Your task to perform on an android device: uninstall "Lyft - Rideshare, Bikes, Scooters & Transit" Image 0: 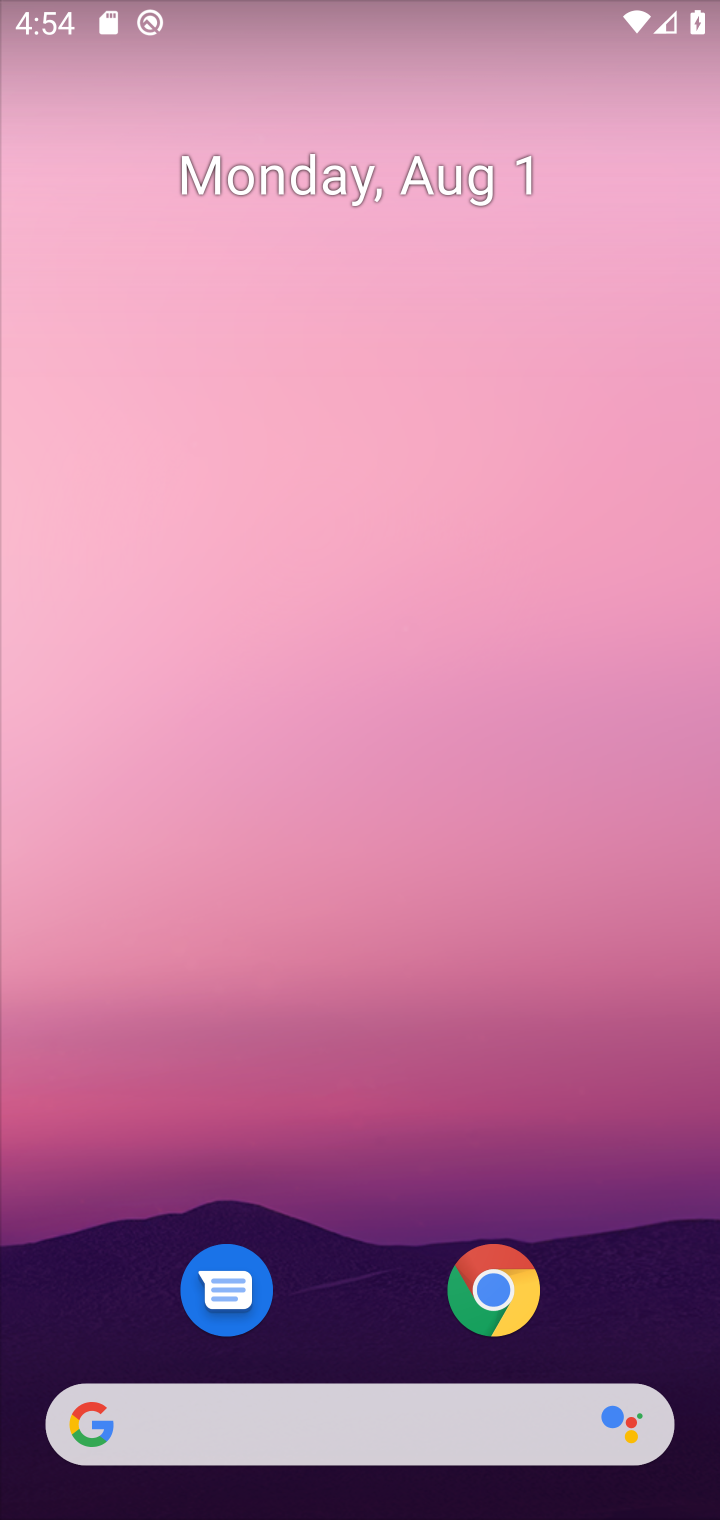
Step 0: drag from (295, 1408) to (0, 83)
Your task to perform on an android device: uninstall "Lyft - Rideshare, Bikes, Scooters & Transit" Image 1: 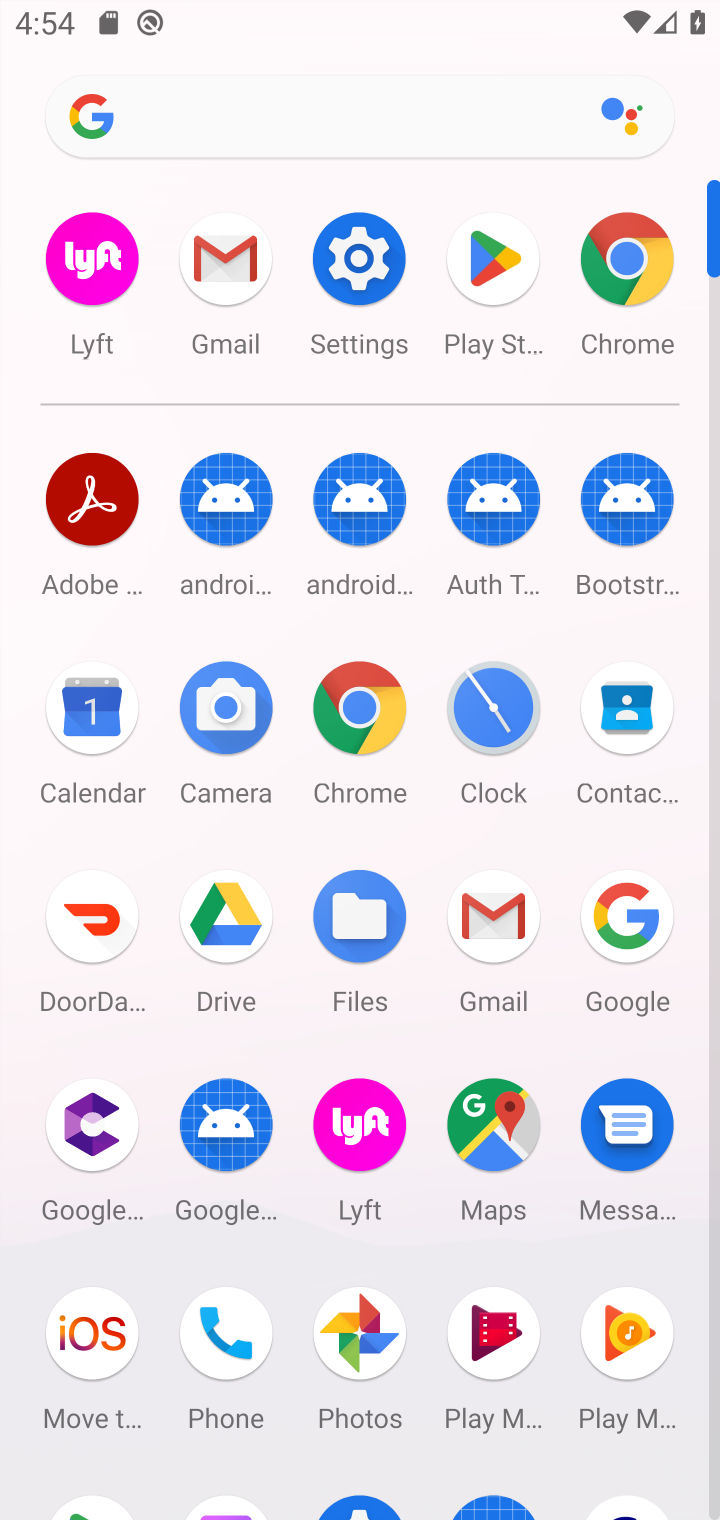
Step 1: click (501, 267)
Your task to perform on an android device: uninstall "Lyft - Rideshare, Bikes, Scooters & Transit" Image 2: 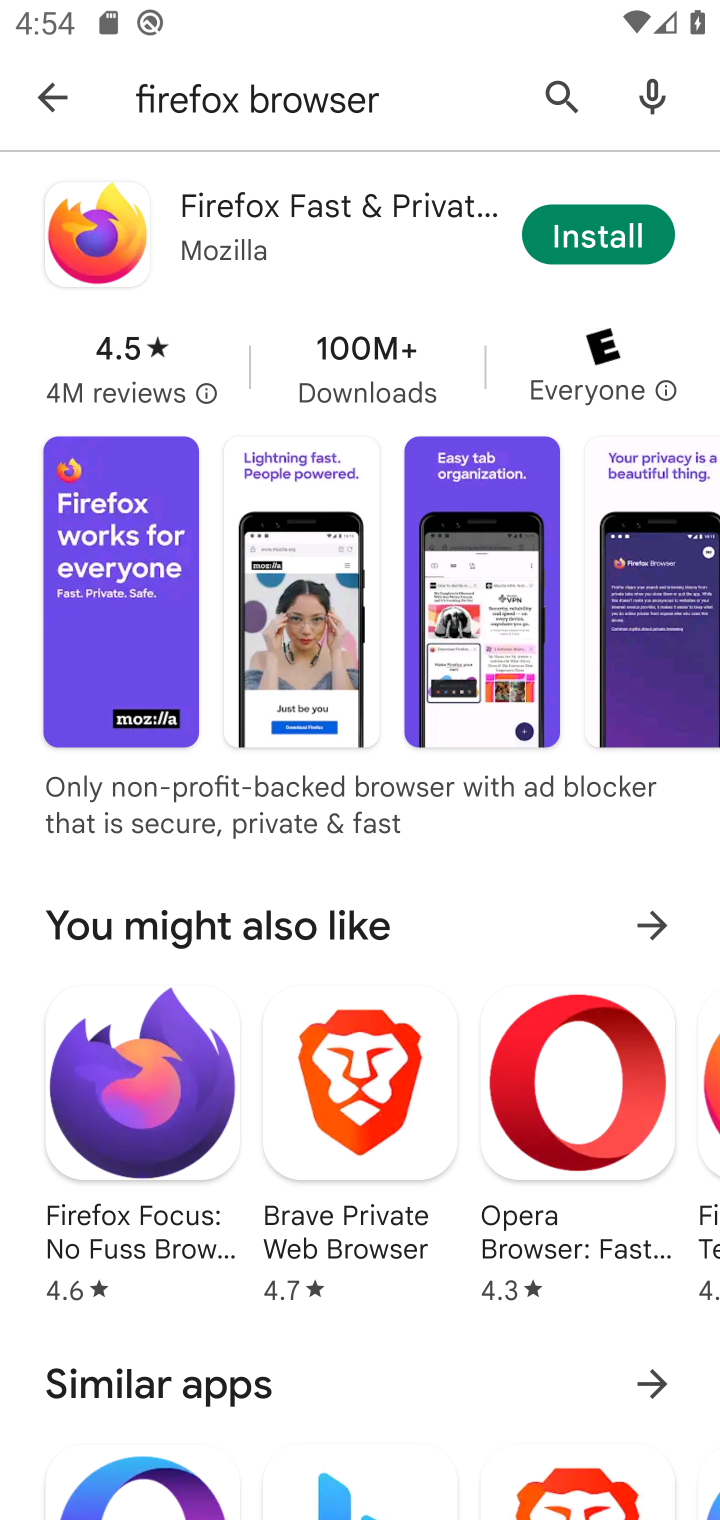
Step 2: click (544, 75)
Your task to perform on an android device: uninstall "Lyft - Rideshare, Bikes, Scooters & Transit" Image 3: 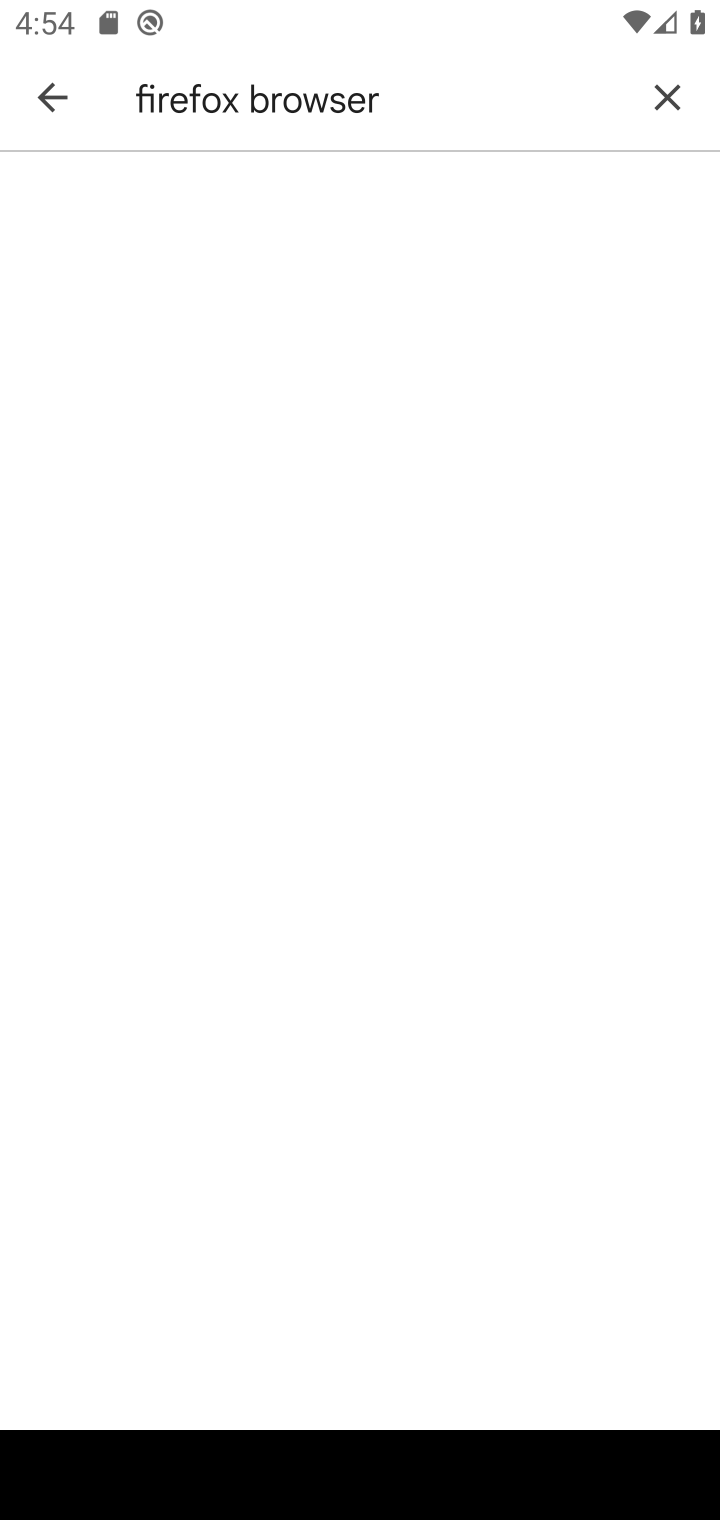
Step 3: click (679, 100)
Your task to perform on an android device: uninstall "Lyft - Rideshare, Bikes, Scooters & Transit" Image 4: 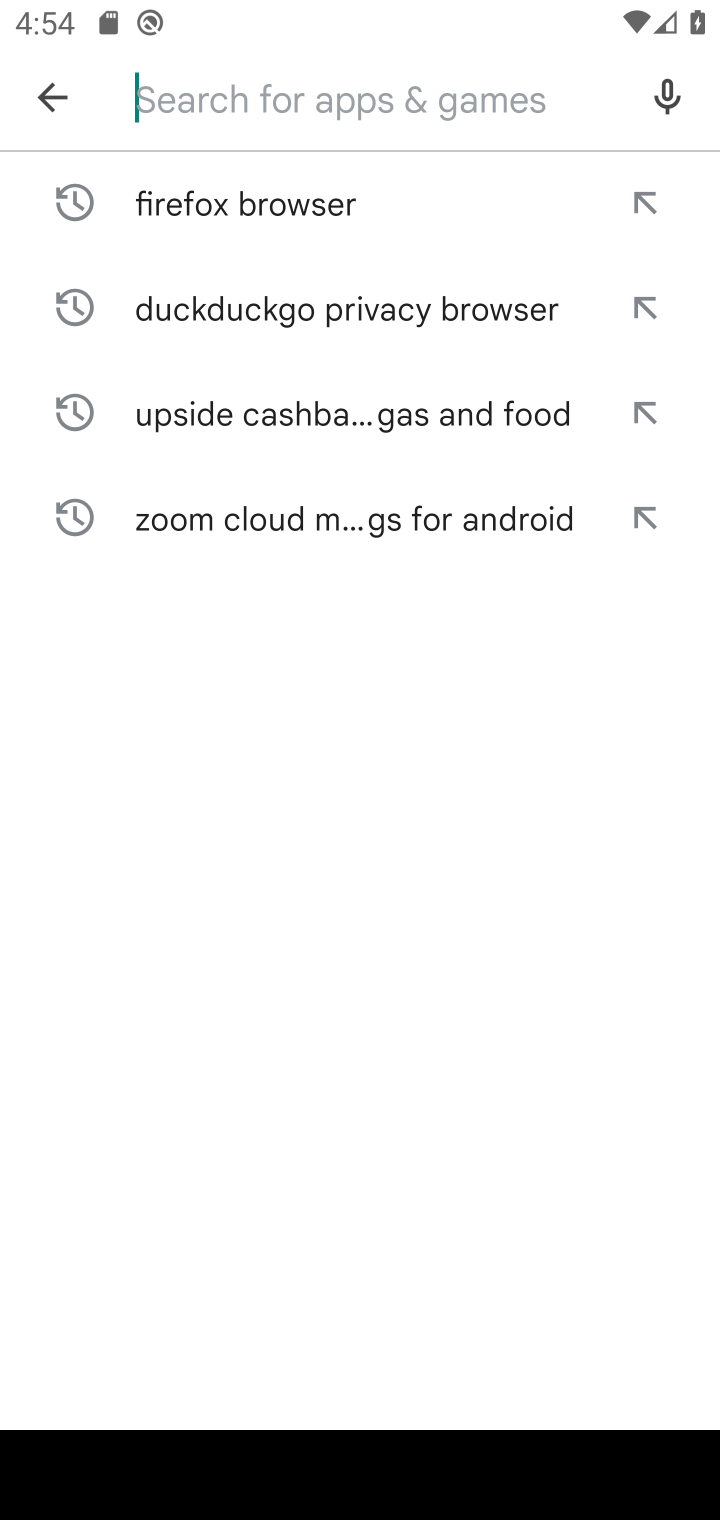
Step 4: type "lyft"
Your task to perform on an android device: uninstall "Lyft - Rideshare, Bikes, Scooters & Transit" Image 5: 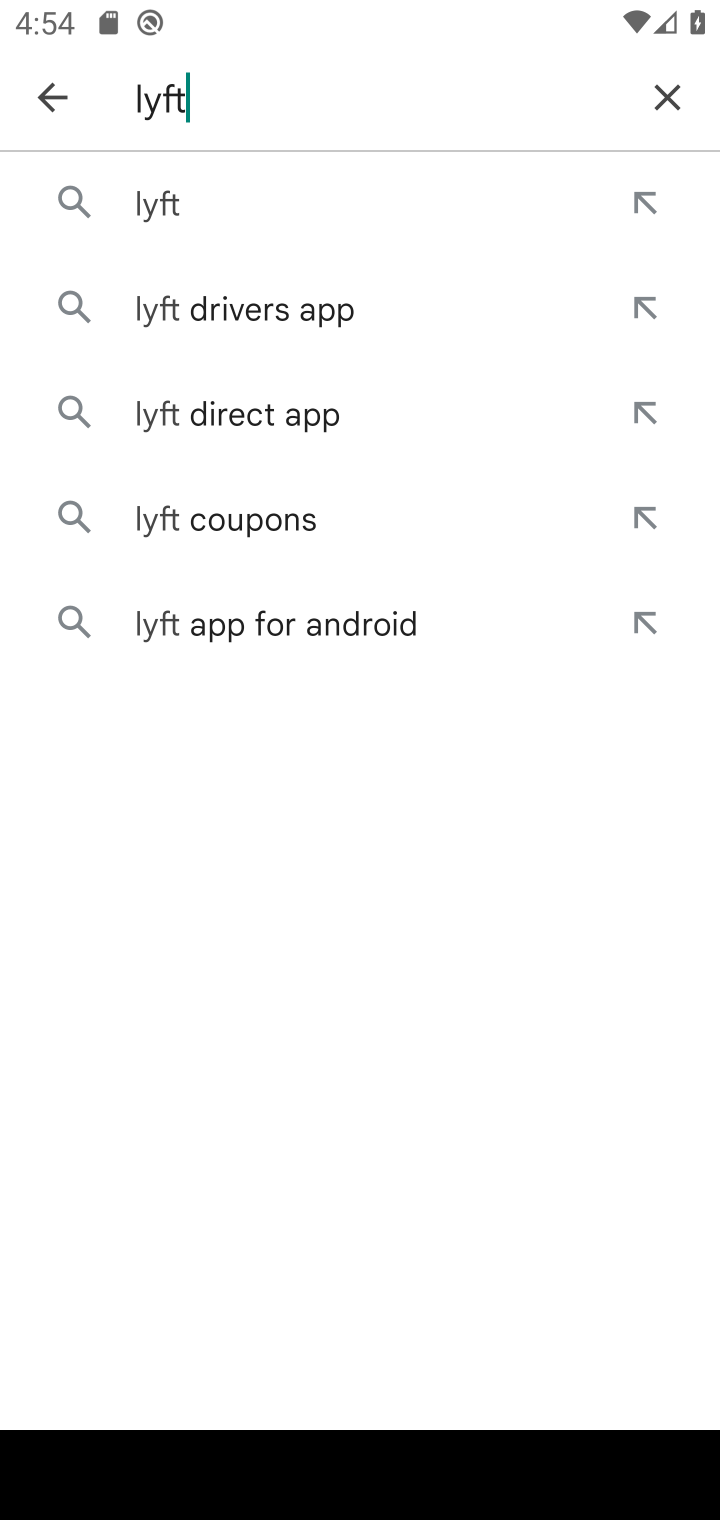
Step 5: click (114, 192)
Your task to perform on an android device: uninstall "Lyft - Rideshare, Bikes, Scooters & Transit" Image 6: 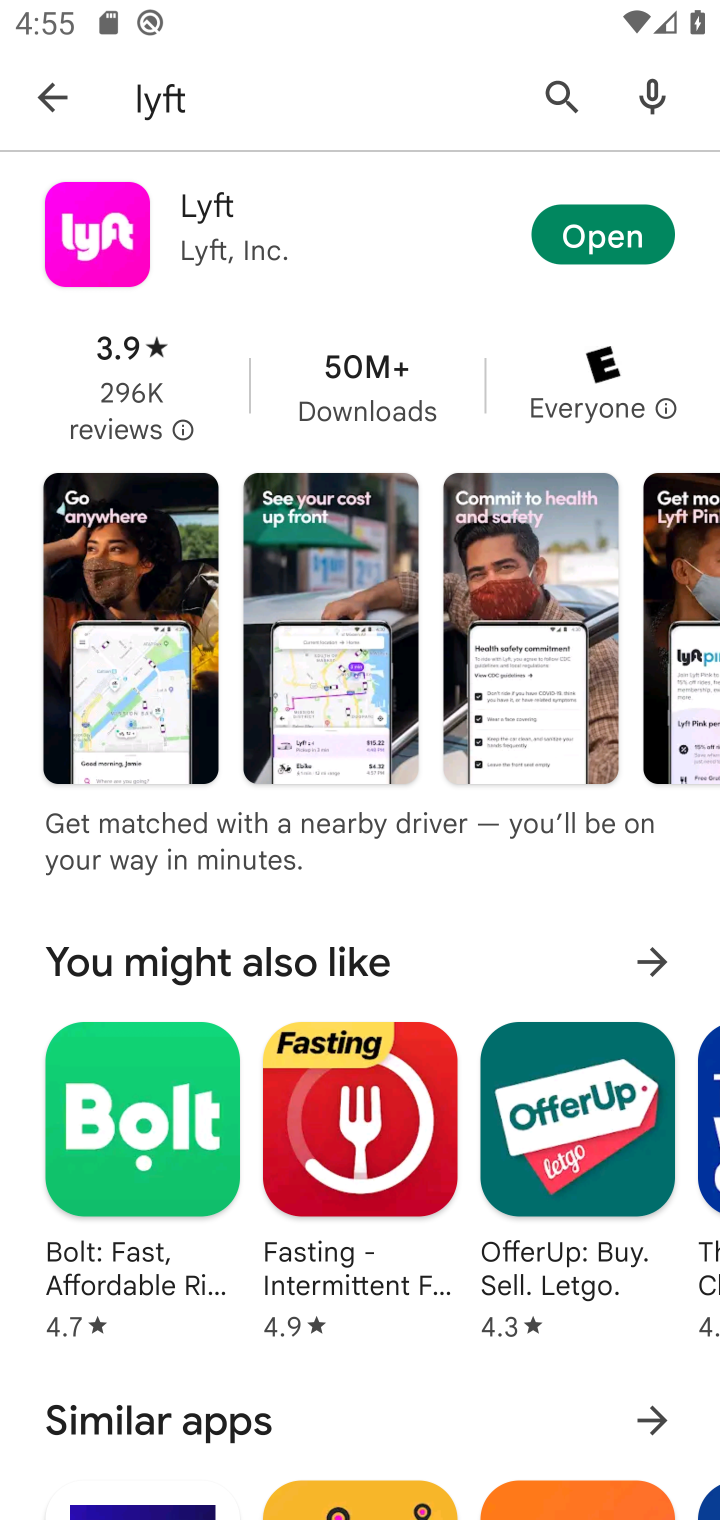
Step 6: click (388, 232)
Your task to perform on an android device: uninstall "Lyft - Rideshare, Bikes, Scooters & Transit" Image 7: 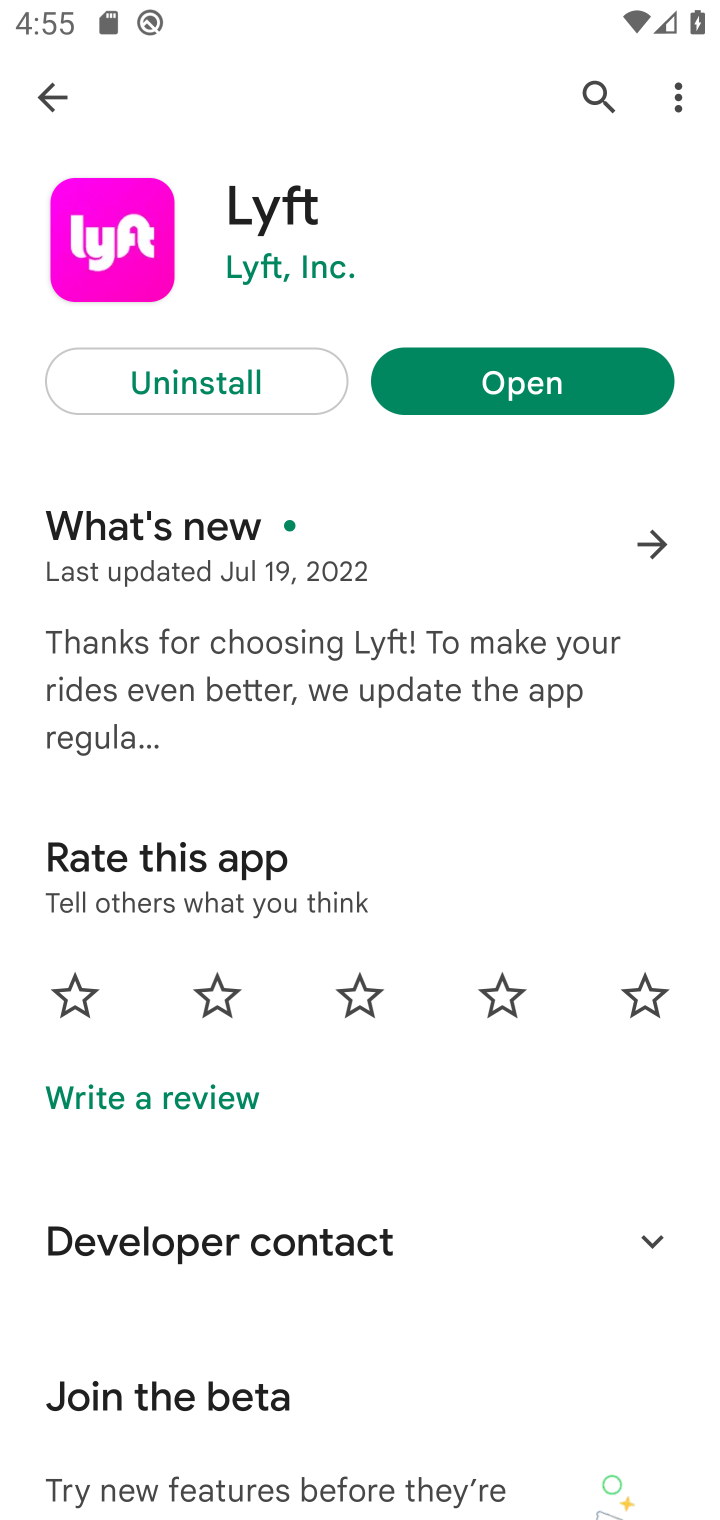
Step 7: click (243, 379)
Your task to perform on an android device: uninstall "Lyft - Rideshare, Bikes, Scooters & Transit" Image 8: 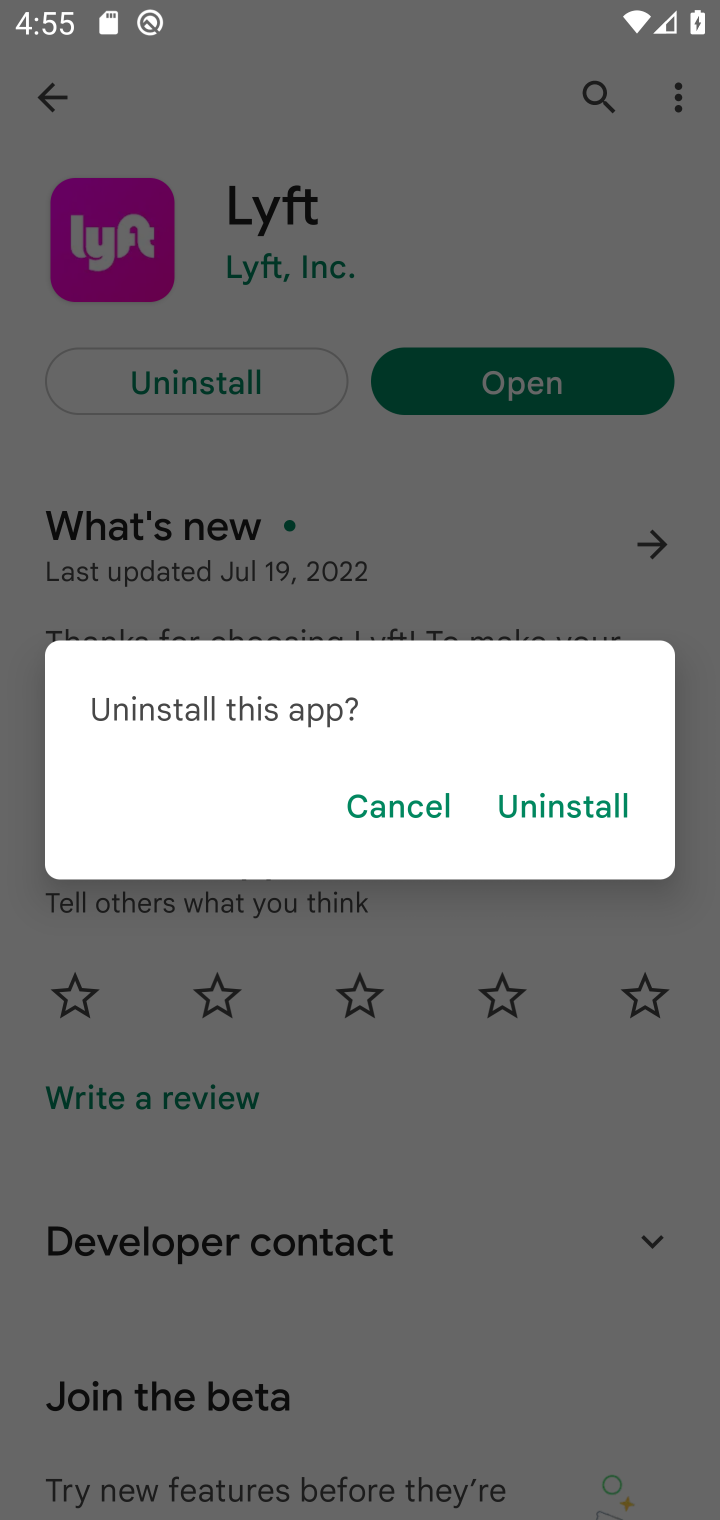
Step 8: click (598, 814)
Your task to perform on an android device: uninstall "Lyft - Rideshare, Bikes, Scooters & Transit" Image 9: 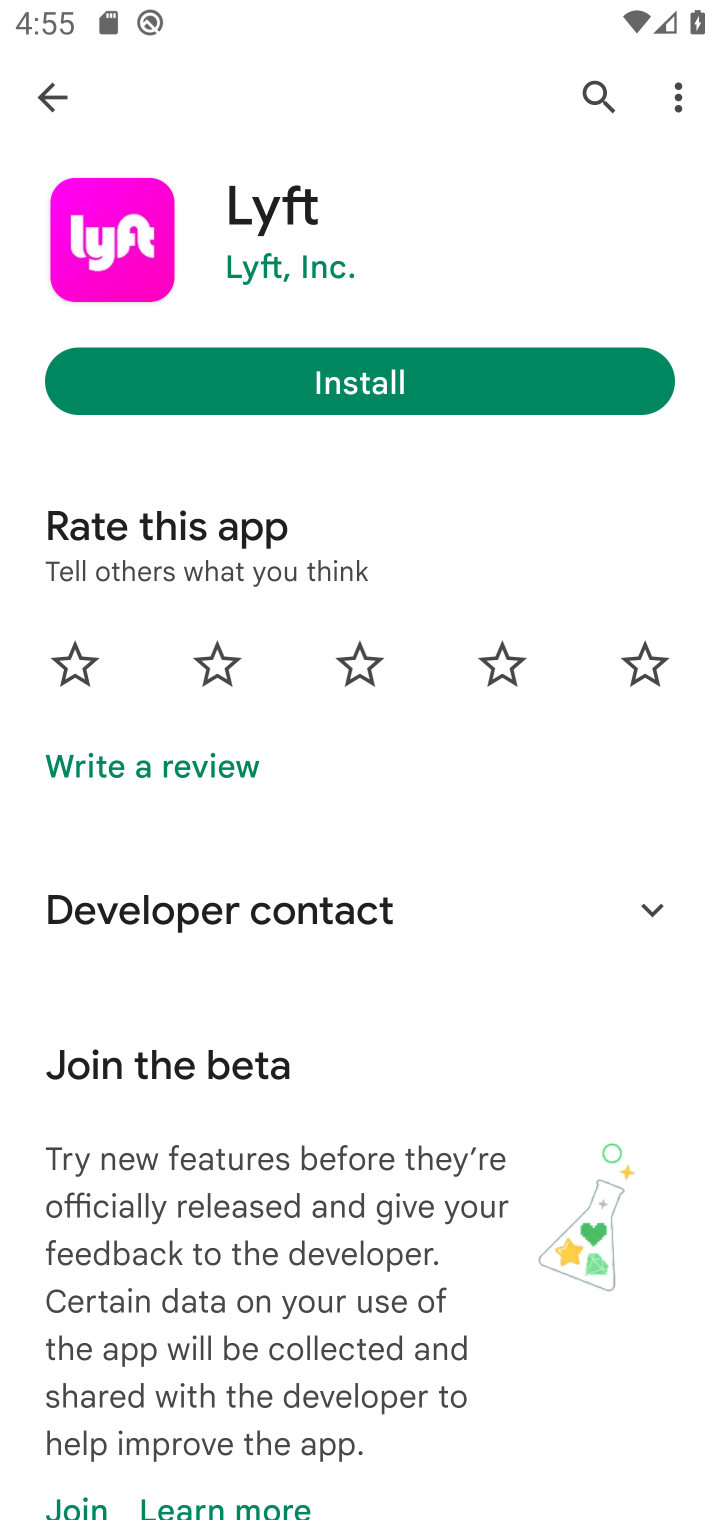
Step 9: task complete